Your task to perform on an android device: See recent photos Image 0: 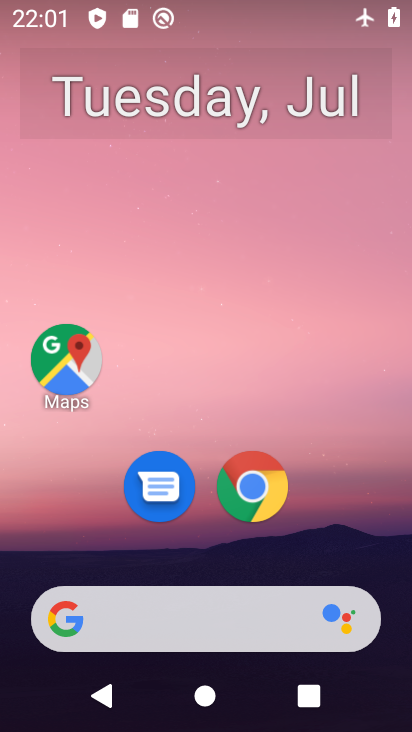
Step 0: drag from (377, 536) to (366, 171)
Your task to perform on an android device: See recent photos Image 1: 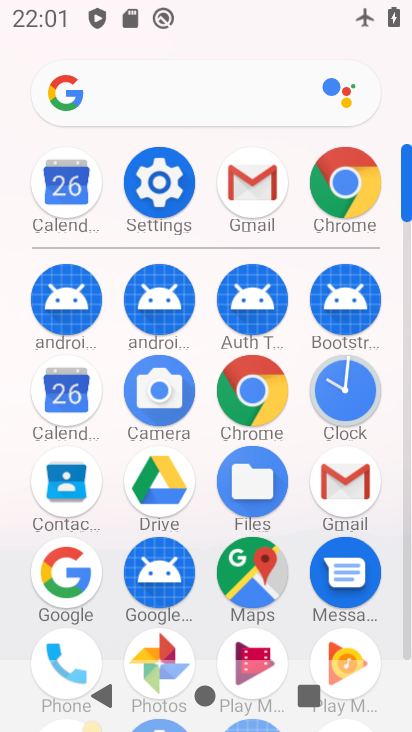
Step 1: drag from (391, 403) to (391, 276)
Your task to perform on an android device: See recent photos Image 2: 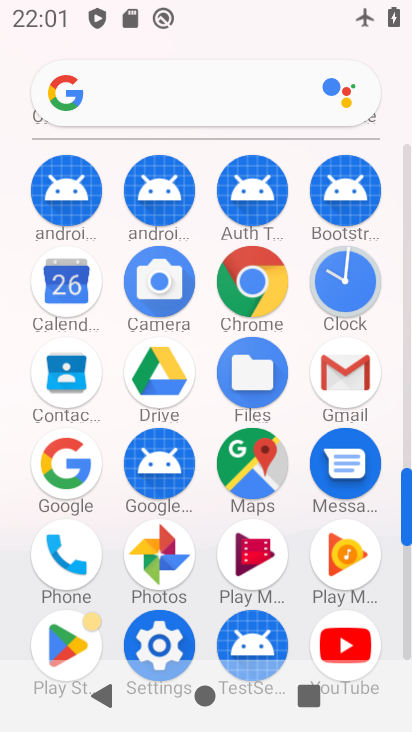
Step 2: click (166, 548)
Your task to perform on an android device: See recent photos Image 3: 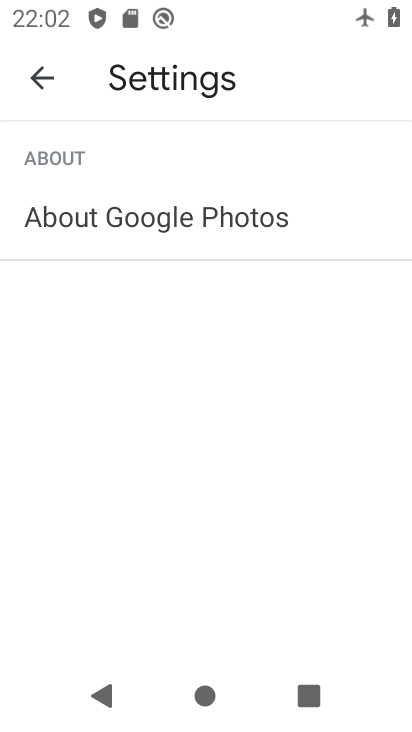
Step 3: press back button
Your task to perform on an android device: See recent photos Image 4: 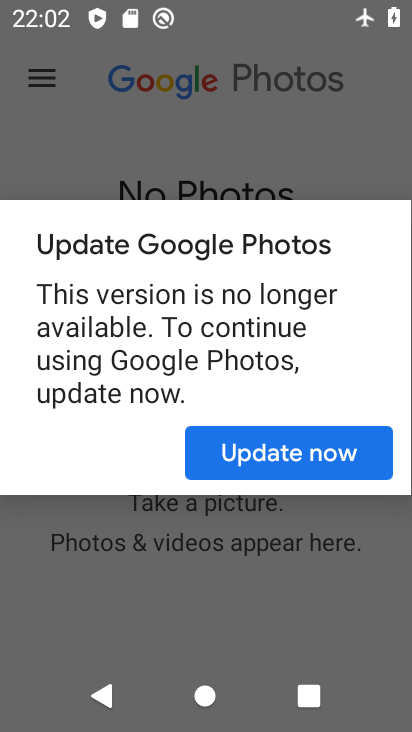
Step 4: click (369, 444)
Your task to perform on an android device: See recent photos Image 5: 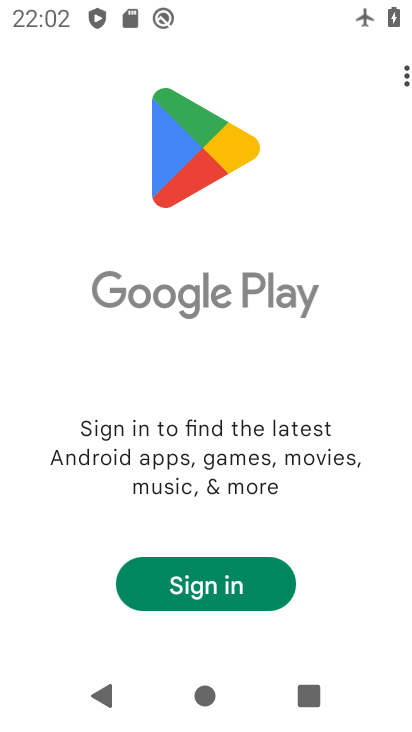
Step 5: task complete